Your task to perform on an android device: Go to display settings Image 0: 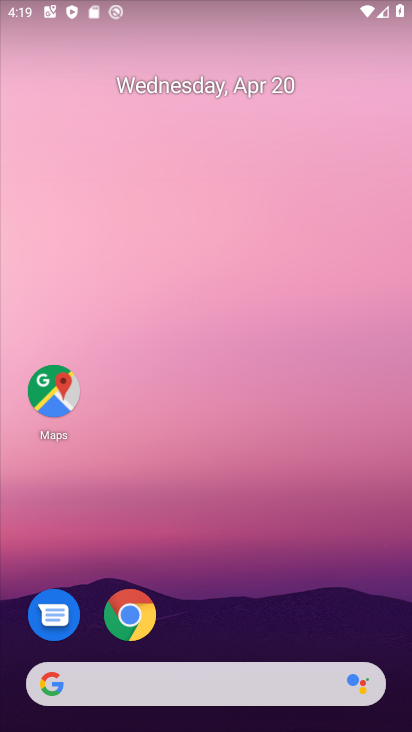
Step 0: drag from (213, 510) to (285, 3)
Your task to perform on an android device: Go to display settings Image 1: 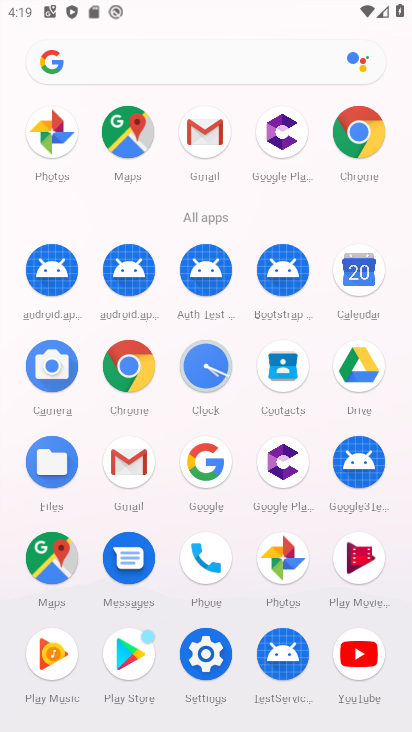
Step 1: click (213, 650)
Your task to perform on an android device: Go to display settings Image 2: 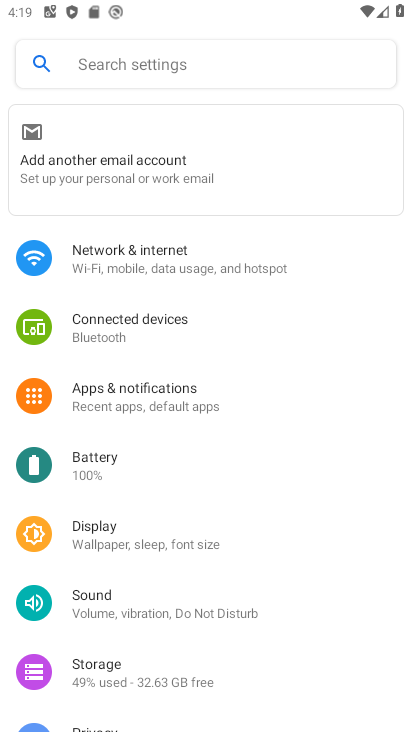
Step 2: click (131, 538)
Your task to perform on an android device: Go to display settings Image 3: 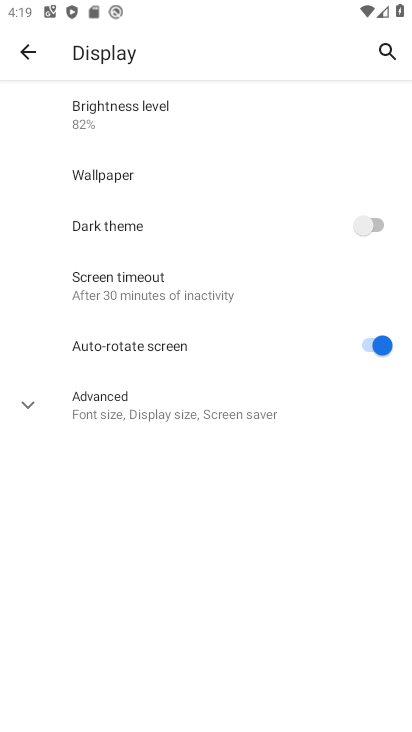
Step 3: task complete